Your task to perform on an android device: Go to Reddit.com Image 0: 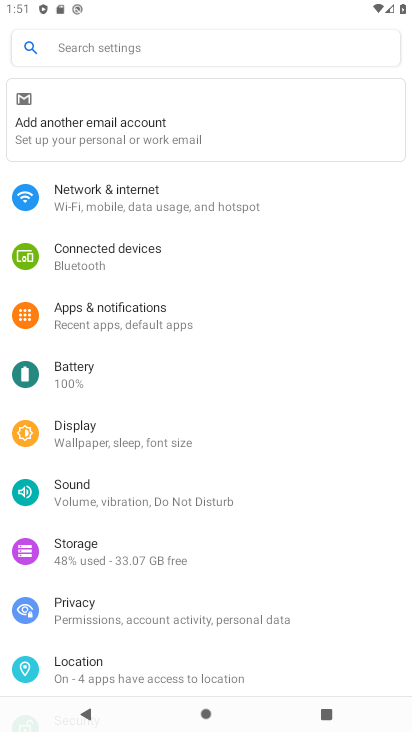
Step 0: press back button
Your task to perform on an android device: Go to Reddit.com Image 1: 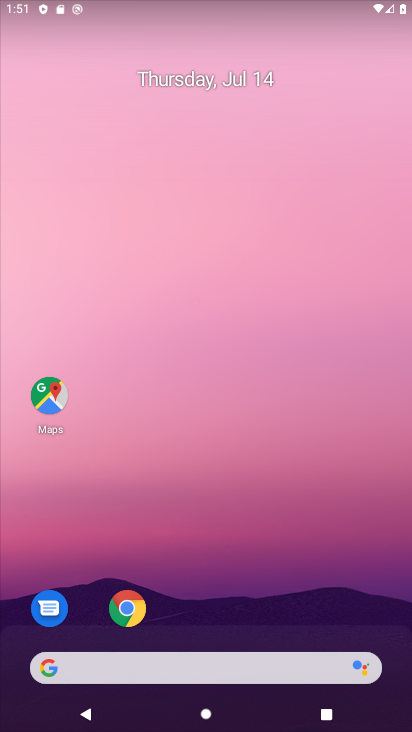
Step 1: click (121, 604)
Your task to perform on an android device: Go to Reddit.com Image 2: 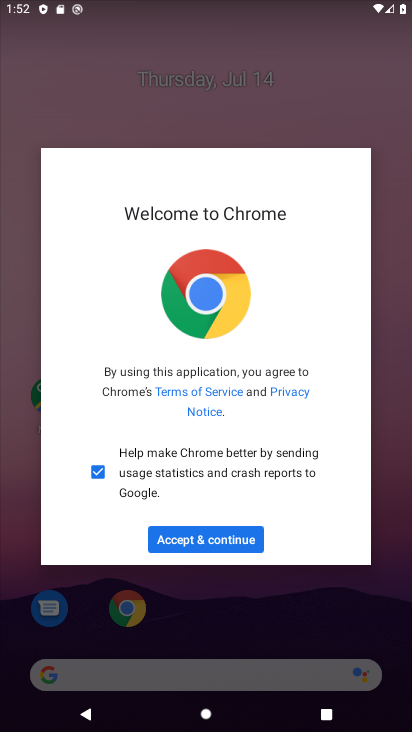
Step 2: click (201, 536)
Your task to perform on an android device: Go to Reddit.com Image 3: 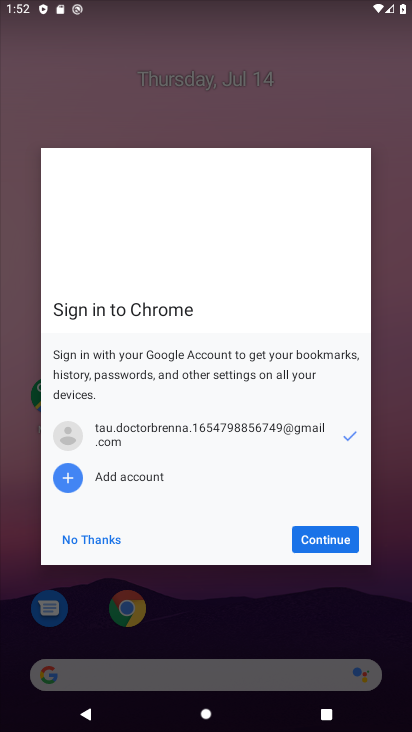
Step 3: click (306, 532)
Your task to perform on an android device: Go to Reddit.com Image 4: 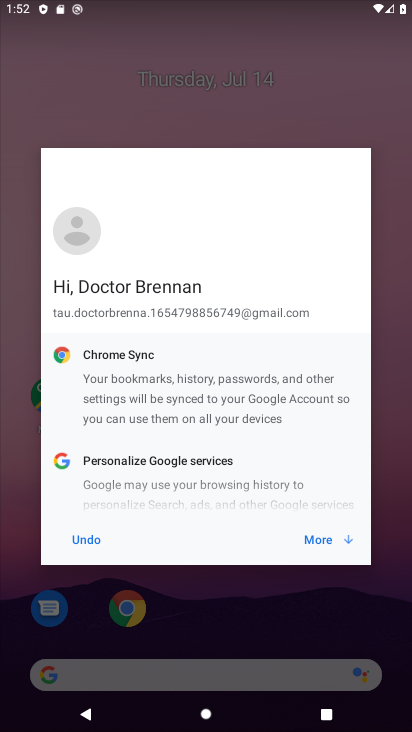
Step 4: click (308, 542)
Your task to perform on an android device: Go to Reddit.com Image 5: 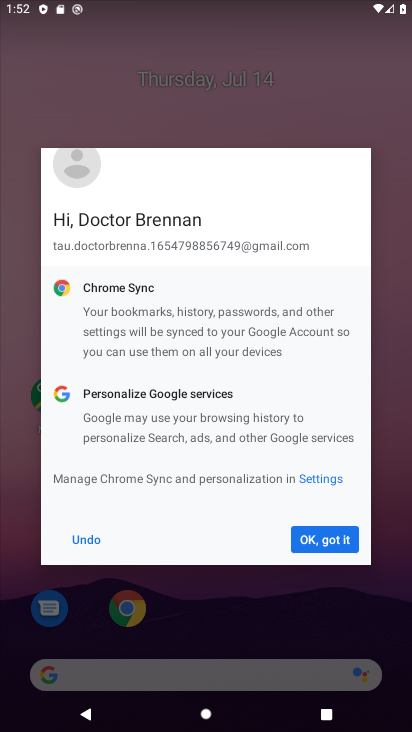
Step 5: click (329, 542)
Your task to perform on an android device: Go to Reddit.com Image 6: 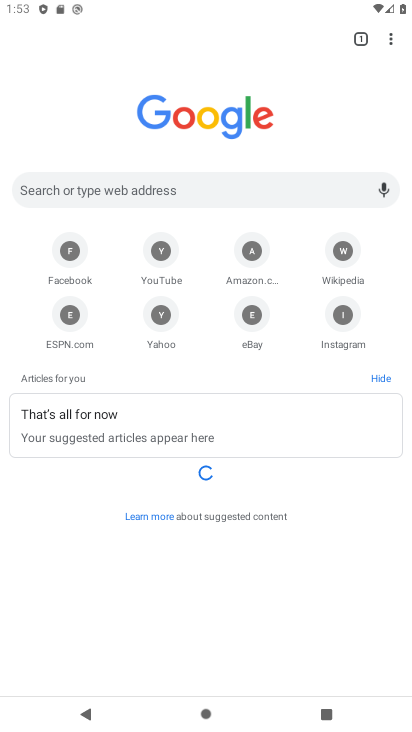
Step 6: click (124, 178)
Your task to perform on an android device: Go to Reddit.com Image 7: 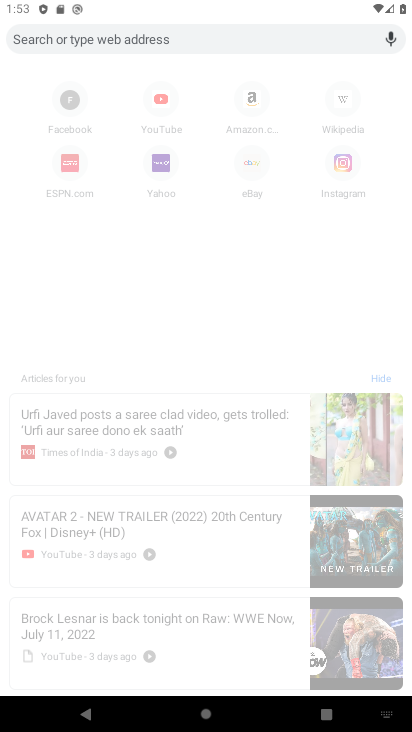
Step 7: click (109, 48)
Your task to perform on an android device: Go to Reddit.com Image 8: 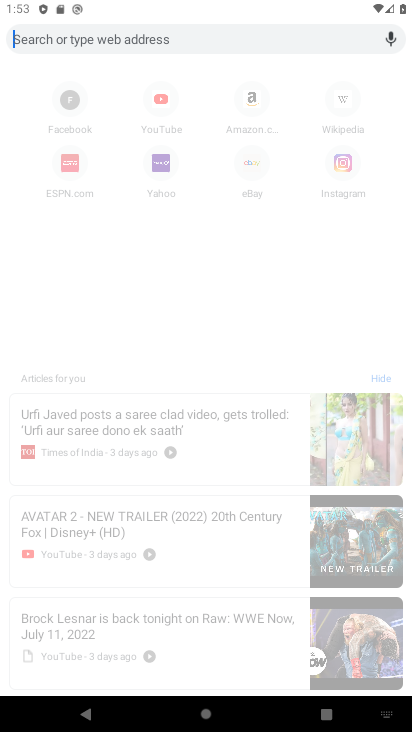
Step 8: type "reddit.com"
Your task to perform on an android device: Go to Reddit.com Image 9: 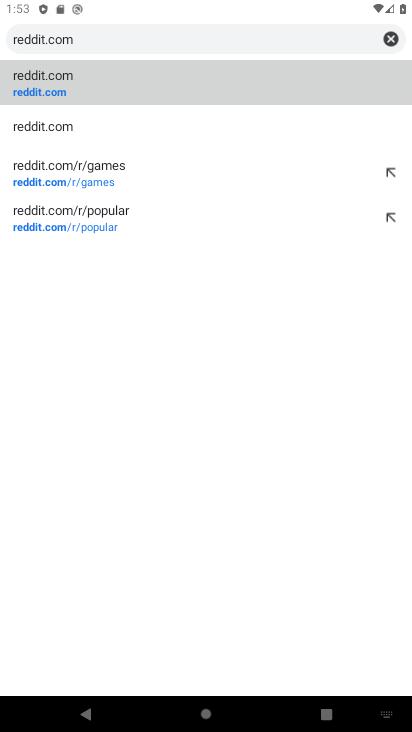
Step 9: click (117, 77)
Your task to perform on an android device: Go to Reddit.com Image 10: 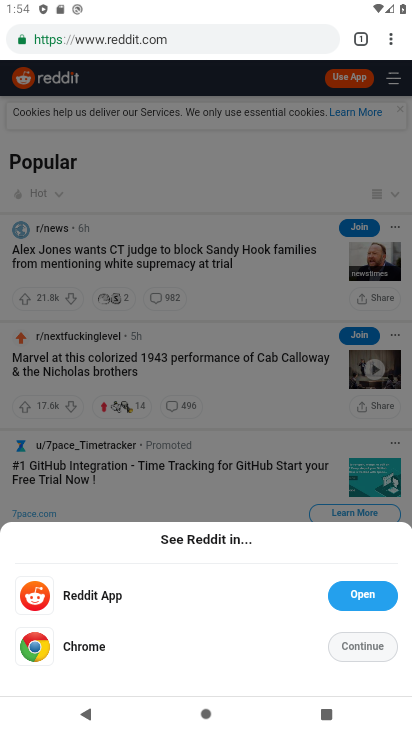
Step 10: task complete